Your task to perform on an android device: check android version Image 0: 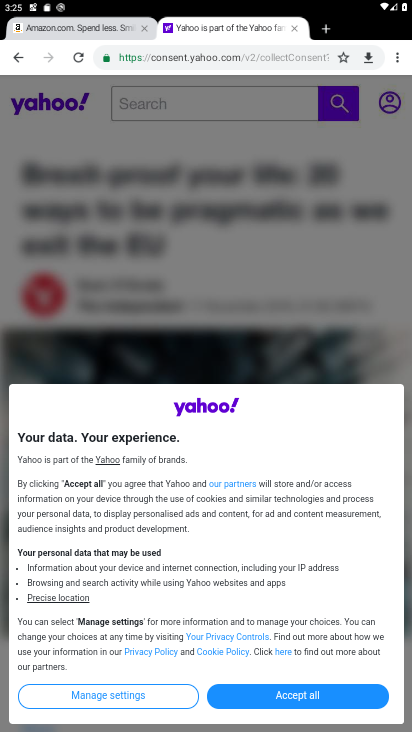
Step 0: press home button
Your task to perform on an android device: check android version Image 1: 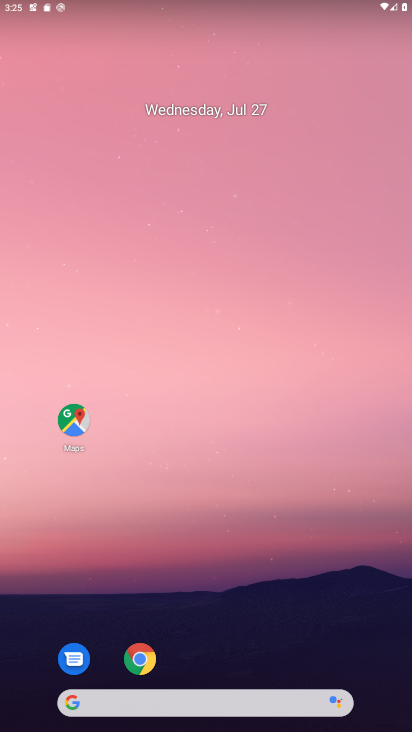
Step 1: drag from (311, 580) to (274, 33)
Your task to perform on an android device: check android version Image 2: 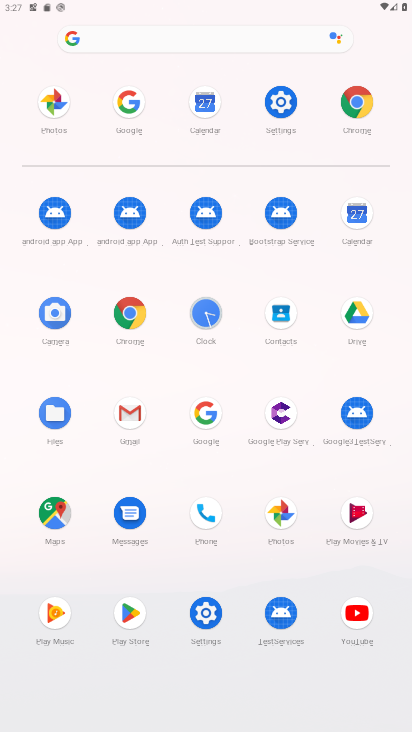
Step 2: click (285, 108)
Your task to perform on an android device: check android version Image 3: 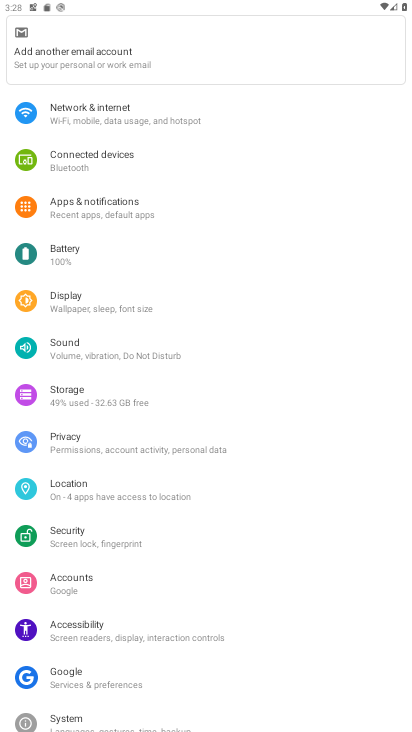
Step 3: drag from (112, 608) to (180, 109)
Your task to perform on an android device: check android version Image 4: 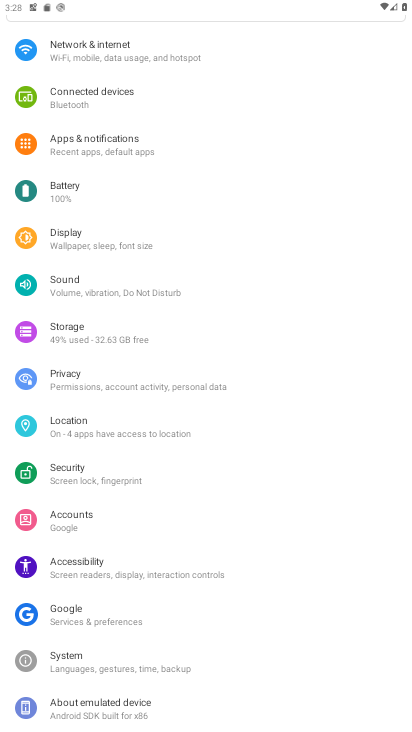
Step 4: click (74, 700)
Your task to perform on an android device: check android version Image 5: 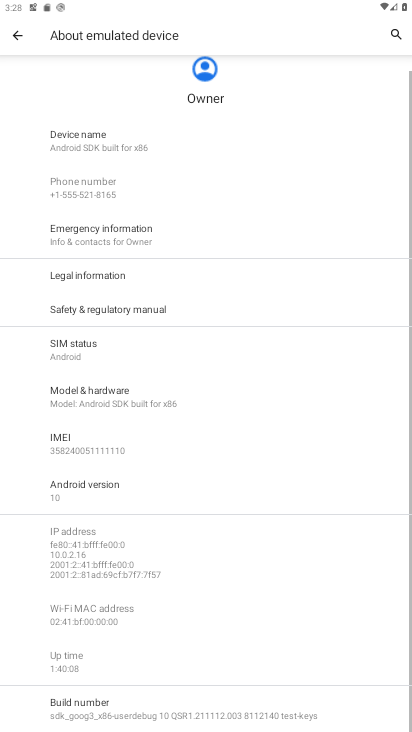
Step 5: drag from (114, 643) to (141, 58)
Your task to perform on an android device: check android version Image 6: 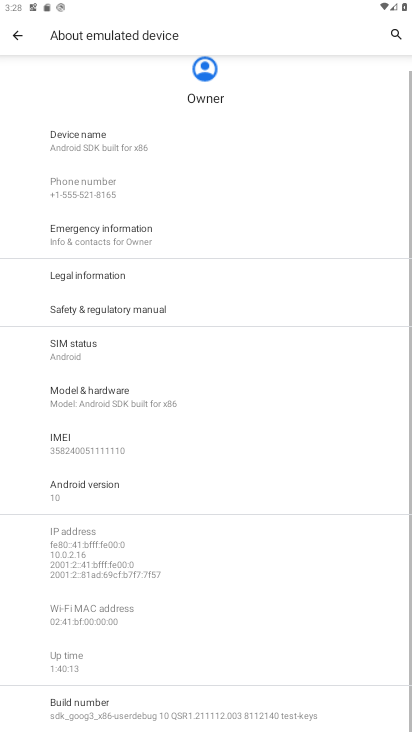
Step 6: click (78, 495)
Your task to perform on an android device: check android version Image 7: 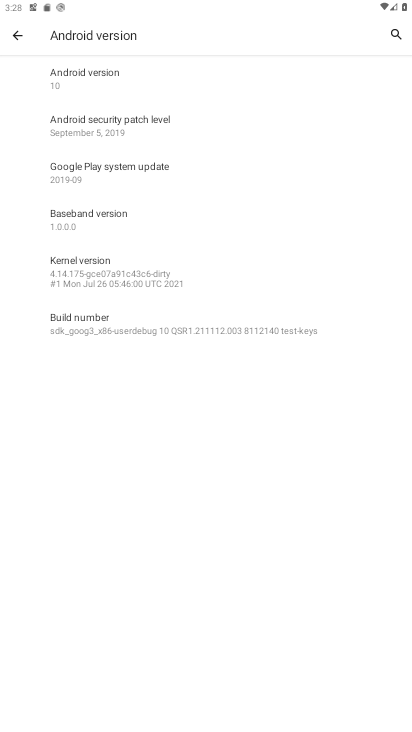
Step 7: task complete